Your task to perform on an android device: open chrome and create a bookmark for the current page Image 0: 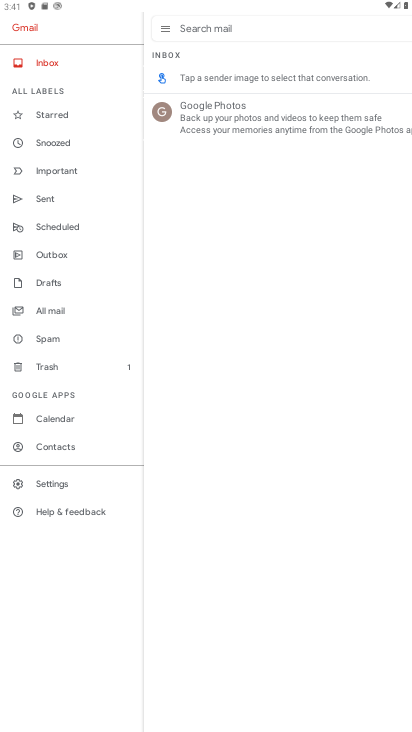
Step 0: press home button
Your task to perform on an android device: open chrome and create a bookmark for the current page Image 1: 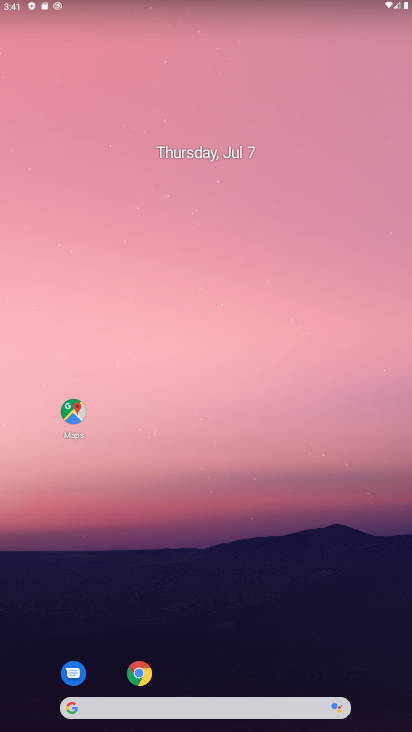
Step 1: drag from (211, 672) to (208, 45)
Your task to perform on an android device: open chrome and create a bookmark for the current page Image 2: 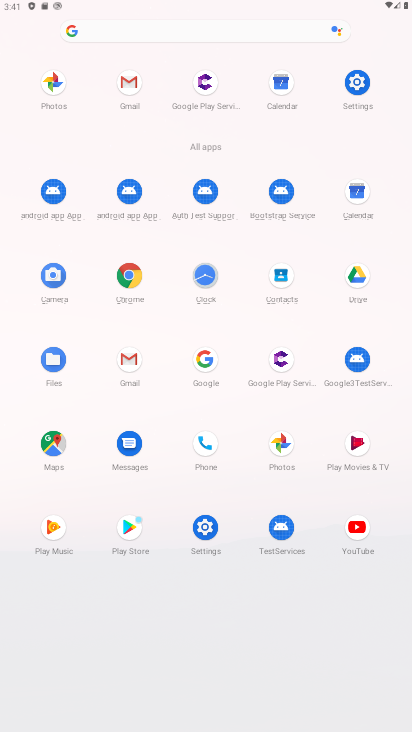
Step 2: click (126, 271)
Your task to perform on an android device: open chrome and create a bookmark for the current page Image 3: 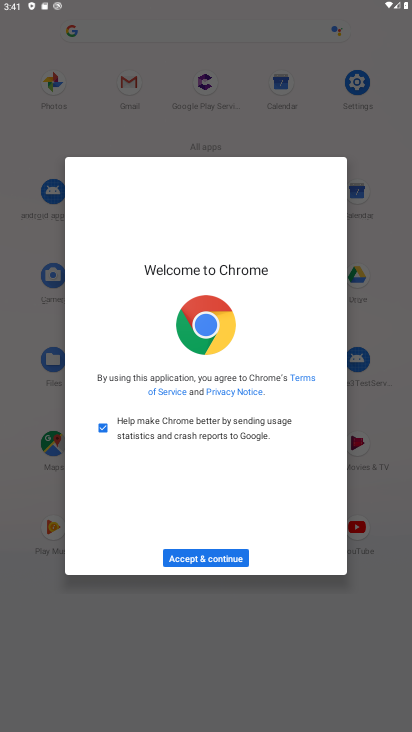
Step 3: click (205, 556)
Your task to perform on an android device: open chrome and create a bookmark for the current page Image 4: 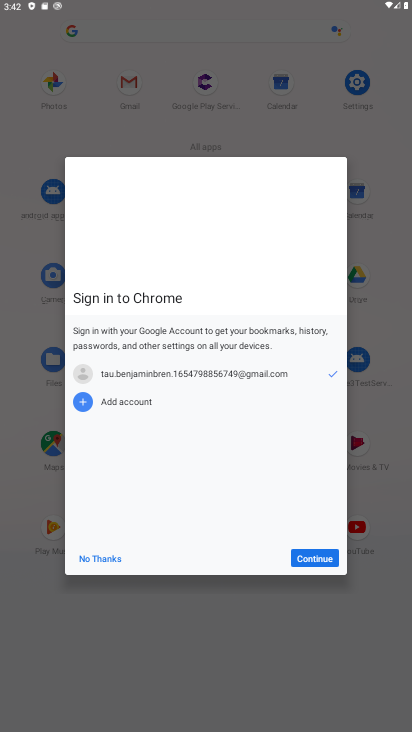
Step 4: click (320, 559)
Your task to perform on an android device: open chrome and create a bookmark for the current page Image 5: 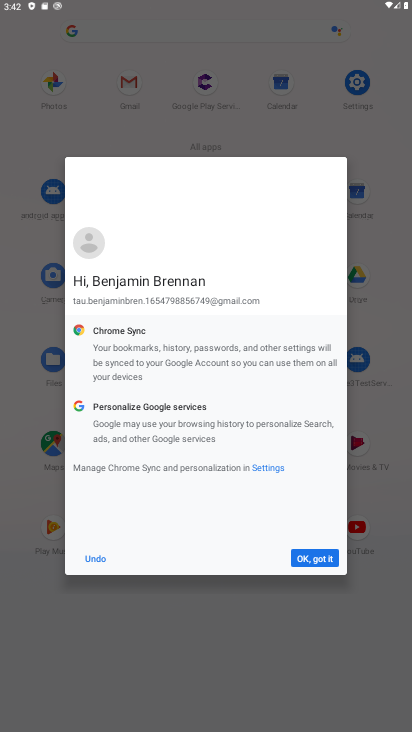
Step 5: click (317, 556)
Your task to perform on an android device: open chrome and create a bookmark for the current page Image 6: 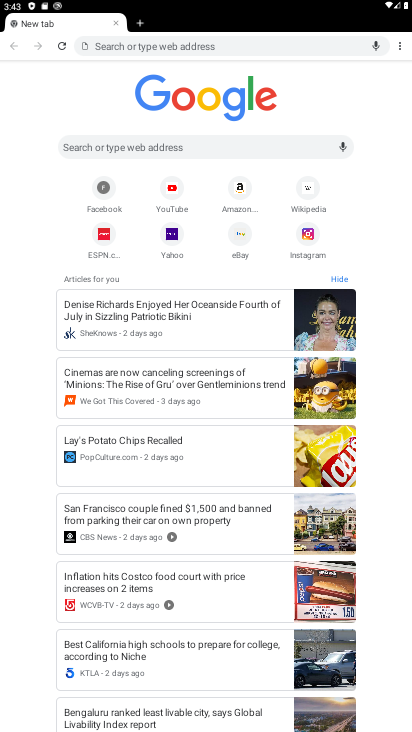
Step 6: click (397, 43)
Your task to perform on an android device: open chrome and create a bookmark for the current page Image 7: 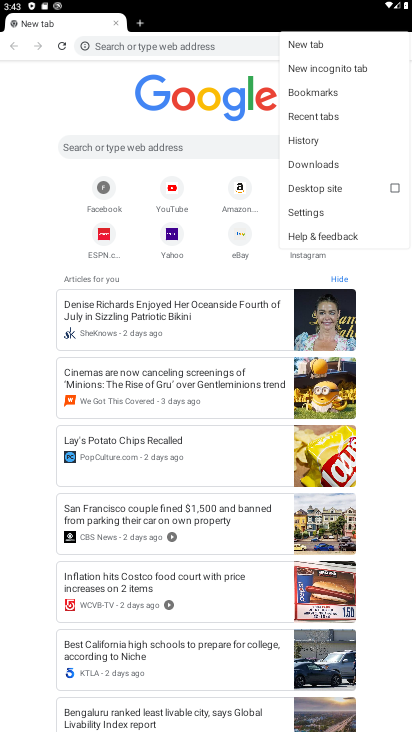
Step 7: click (323, 93)
Your task to perform on an android device: open chrome and create a bookmark for the current page Image 8: 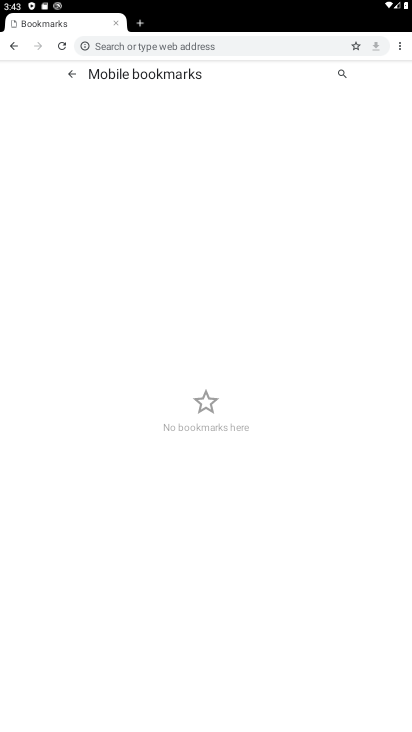
Step 8: click (15, 43)
Your task to perform on an android device: open chrome and create a bookmark for the current page Image 9: 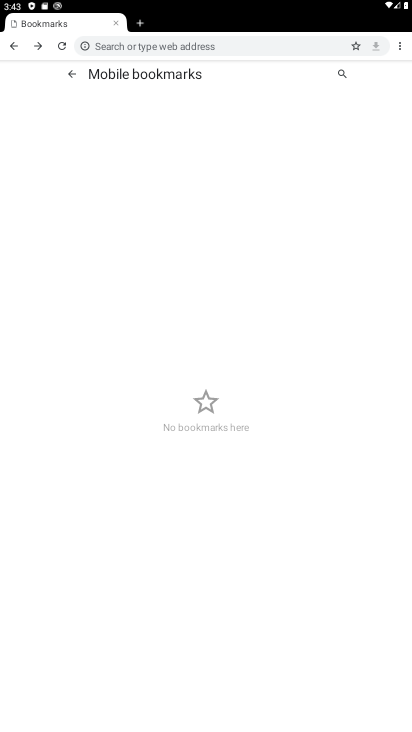
Step 9: click (70, 73)
Your task to perform on an android device: open chrome and create a bookmark for the current page Image 10: 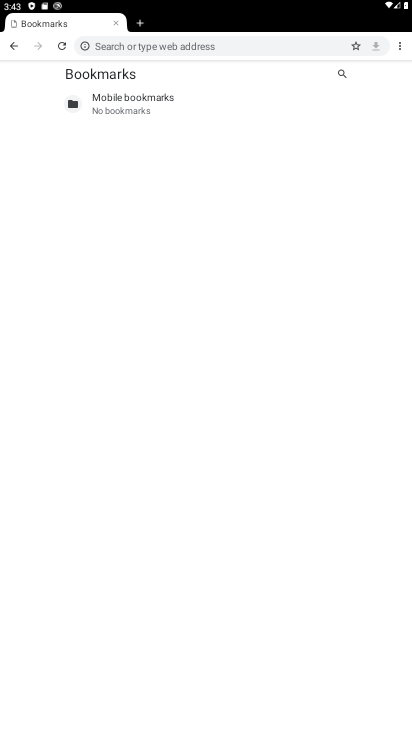
Step 10: click (18, 48)
Your task to perform on an android device: open chrome and create a bookmark for the current page Image 11: 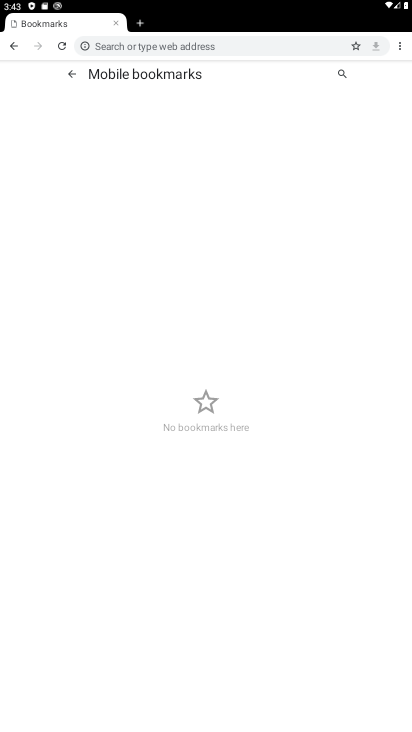
Step 11: click (13, 39)
Your task to perform on an android device: open chrome and create a bookmark for the current page Image 12: 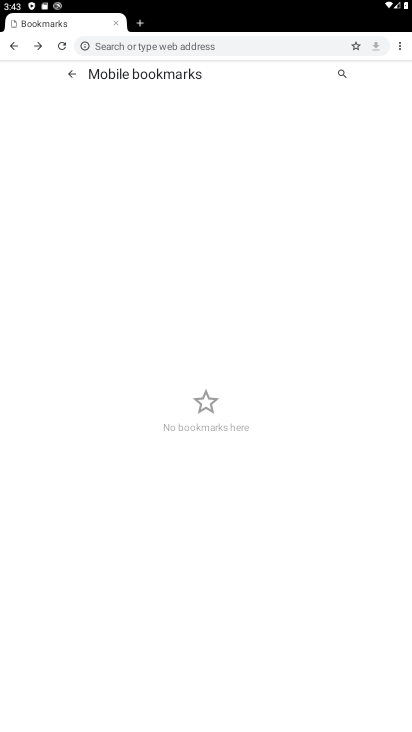
Step 12: press back button
Your task to perform on an android device: open chrome and create a bookmark for the current page Image 13: 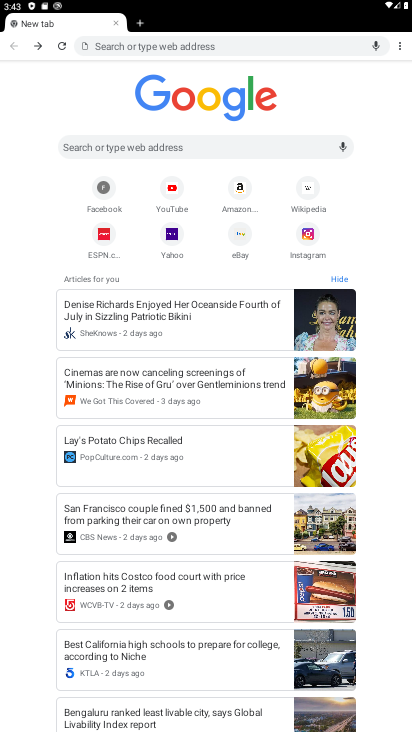
Step 13: click (393, 46)
Your task to perform on an android device: open chrome and create a bookmark for the current page Image 14: 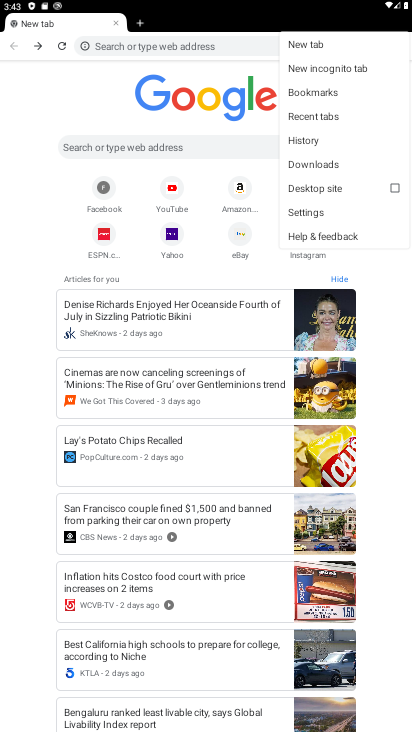
Step 14: click (399, 45)
Your task to perform on an android device: open chrome and create a bookmark for the current page Image 15: 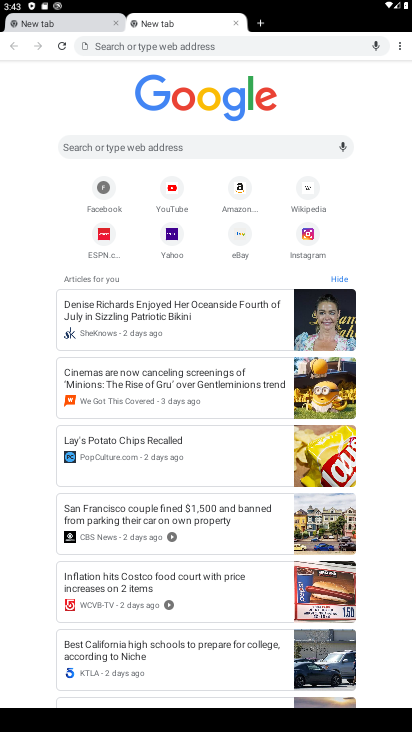
Step 15: click (399, 41)
Your task to perform on an android device: open chrome and create a bookmark for the current page Image 16: 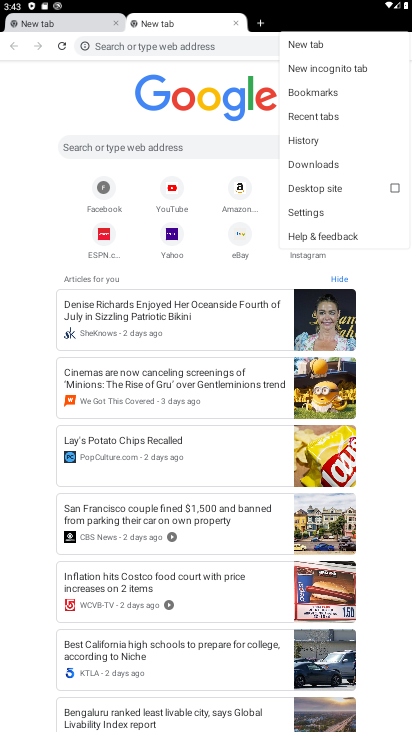
Step 16: click (71, 109)
Your task to perform on an android device: open chrome and create a bookmark for the current page Image 17: 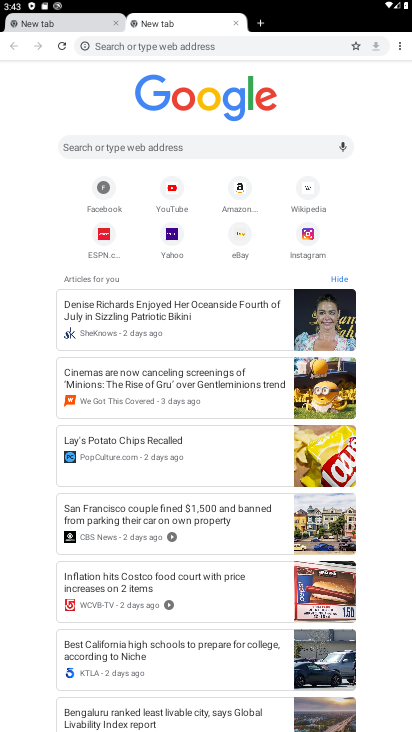
Step 17: click (349, 48)
Your task to perform on an android device: open chrome and create a bookmark for the current page Image 18: 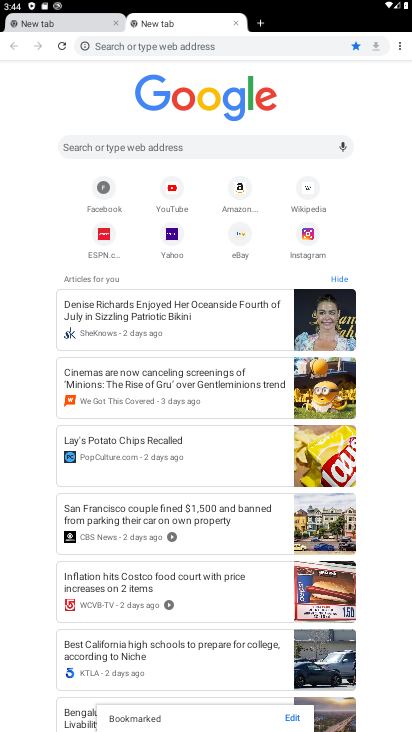
Step 18: task complete